Your task to perform on an android device: open chrome and create a bookmark for the current page Image 0: 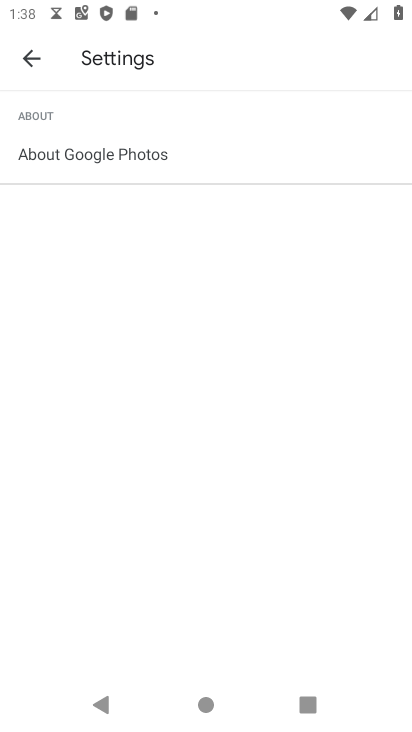
Step 0: press home button
Your task to perform on an android device: open chrome and create a bookmark for the current page Image 1: 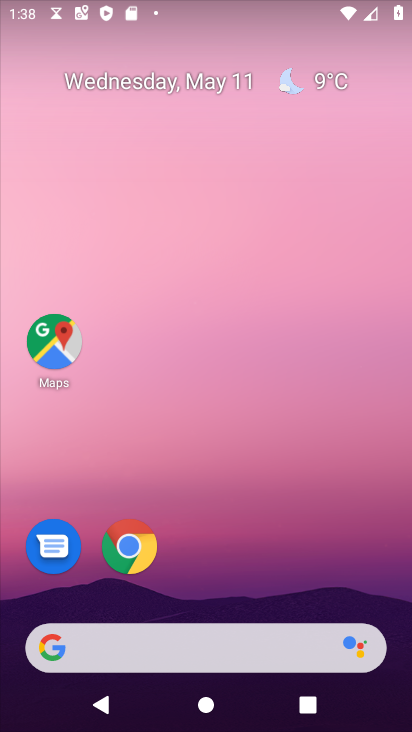
Step 1: drag from (332, 616) to (301, 69)
Your task to perform on an android device: open chrome and create a bookmark for the current page Image 2: 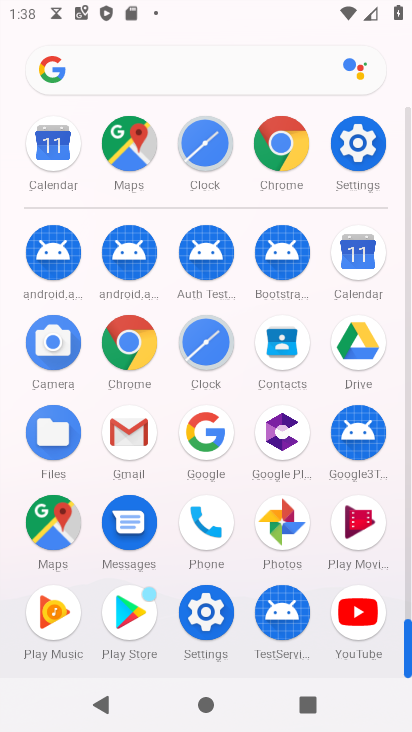
Step 2: click (136, 352)
Your task to perform on an android device: open chrome and create a bookmark for the current page Image 3: 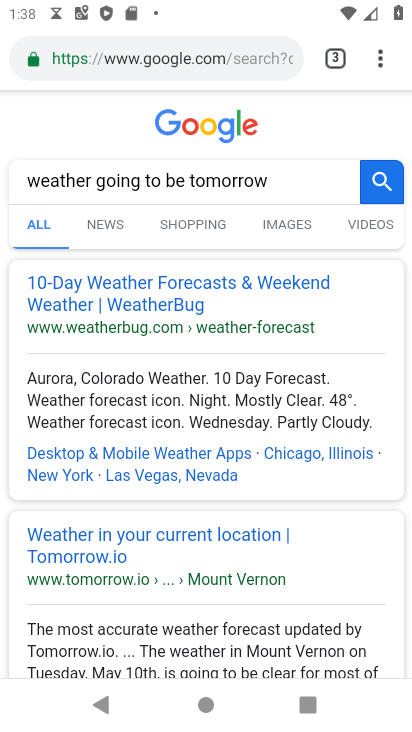
Step 3: click (370, 48)
Your task to perform on an android device: open chrome and create a bookmark for the current page Image 4: 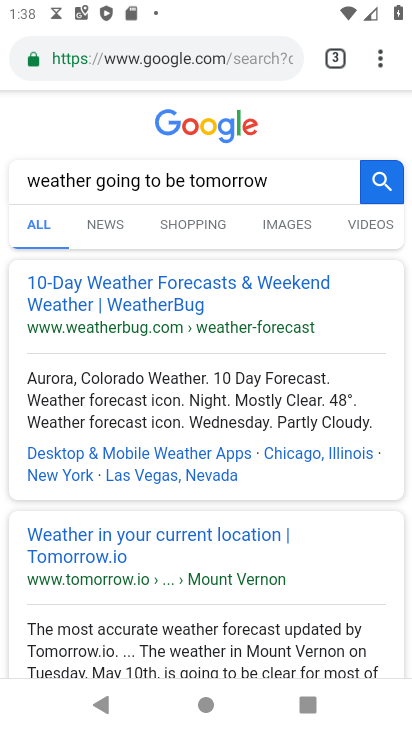
Step 4: click (373, 57)
Your task to perform on an android device: open chrome and create a bookmark for the current page Image 5: 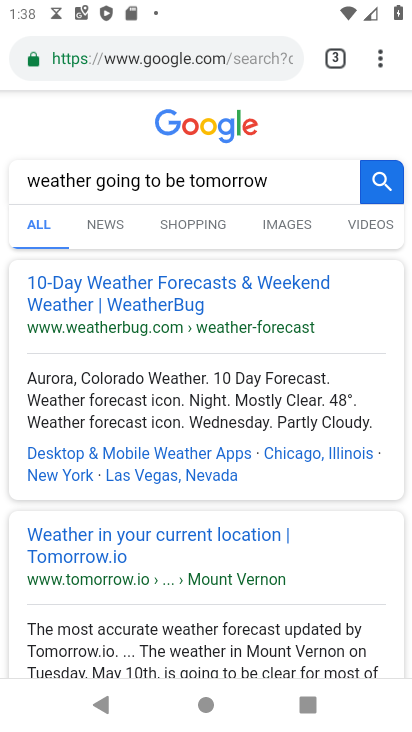
Step 5: drag from (379, 47) to (224, 223)
Your task to perform on an android device: open chrome and create a bookmark for the current page Image 6: 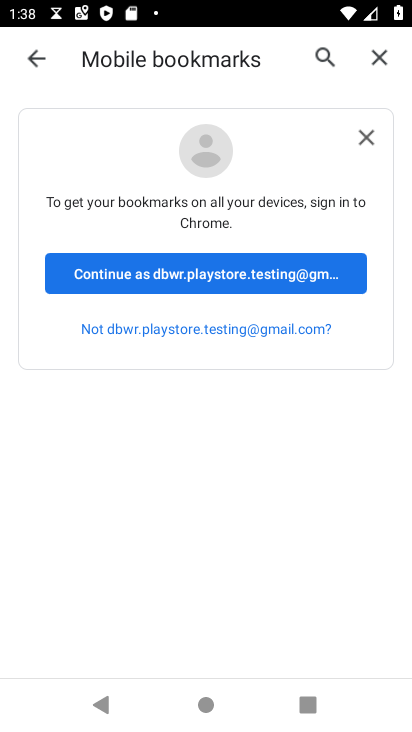
Step 6: press back button
Your task to perform on an android device: open chrome and create a bookmark for the current page Image 7: 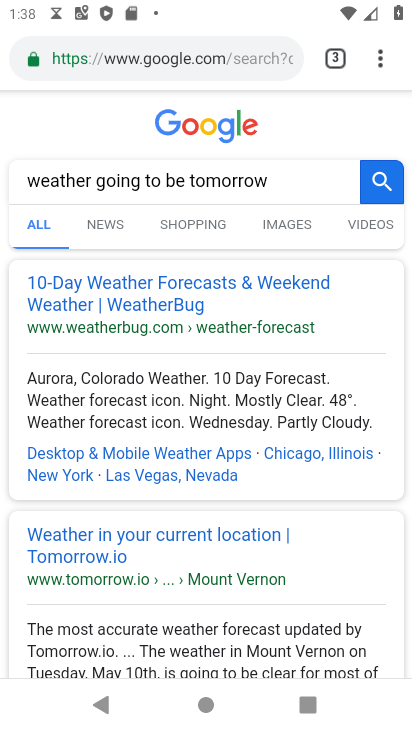
Step 7: click (375, 59)
Your task to perform on an android device: open chrome and create a bookmark for the current page Image 8: 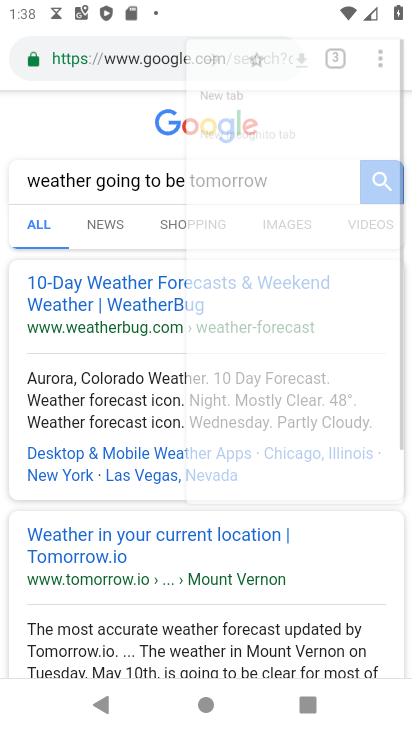
Step 8: drag from (384, 58) to (195, 68)
Your task to perform on an android device: open chrome and create a bookmark for the current page Image 9: 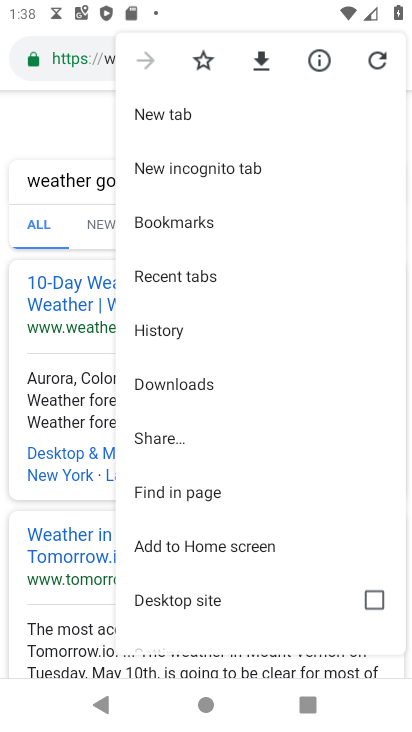
Step 9: click (205, 56)
Your task to perform on an android device: open chrome and create a bookmark for the current page Image 10: 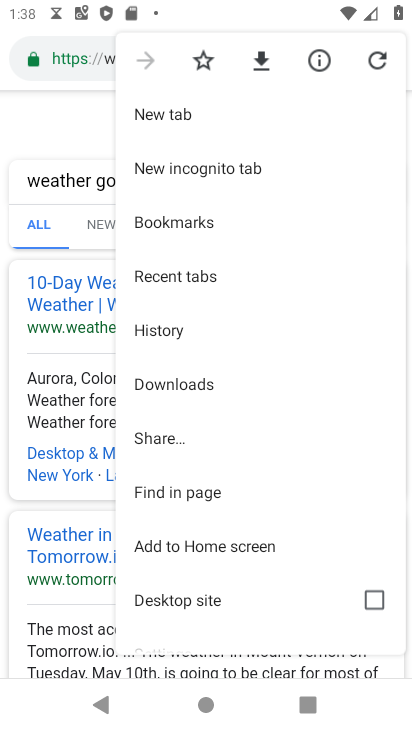
Step 10: click (205, 57)
Your task to perform on an android device: open chrome and create a bookmark for the current page Image 11: 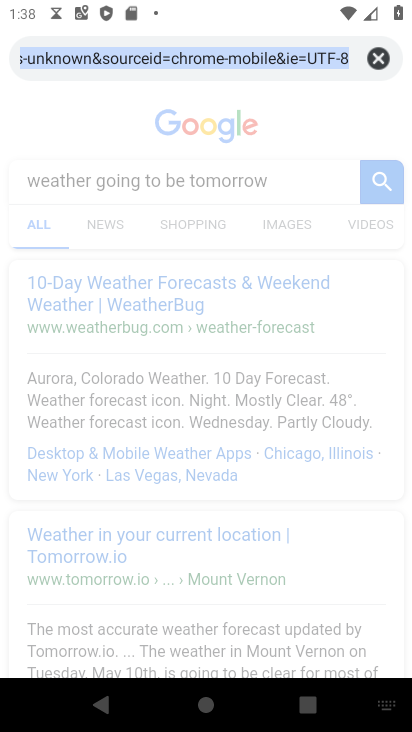
Step 11: task complete